Your task to perform on an android device: stop showing notifications on the lock screen Image 0: 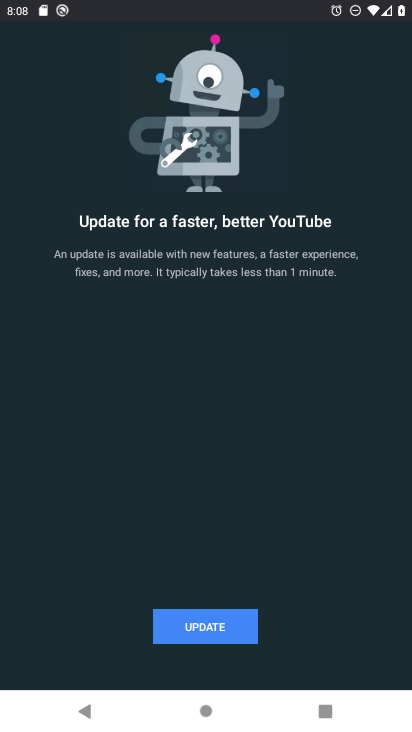
Step 0: press home button
Your task to perform on an android device: stop showing notifications on the lock screen Image 1: 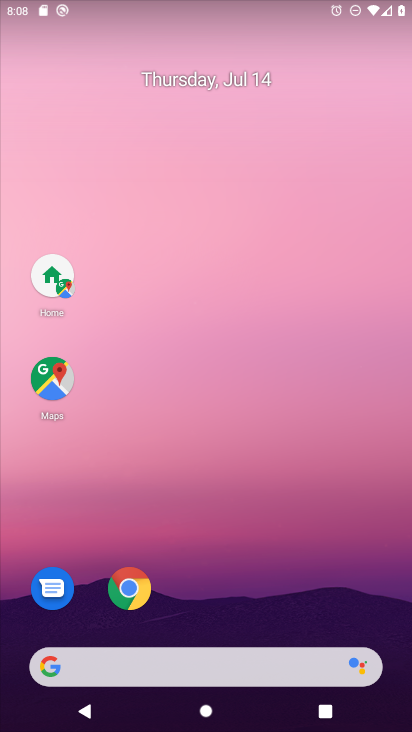
Step 1: drag from (36, 720) to (86, 327)
Your task to perform on an android device: stop showing notifications on the lock screen Image 2: 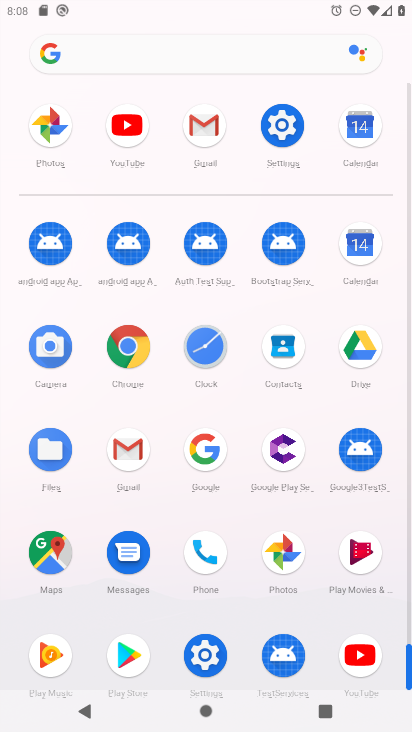
Step 2: click (209, 658)
Your task to perform on an android device: stop showing notifications on the lock screen Image 3: 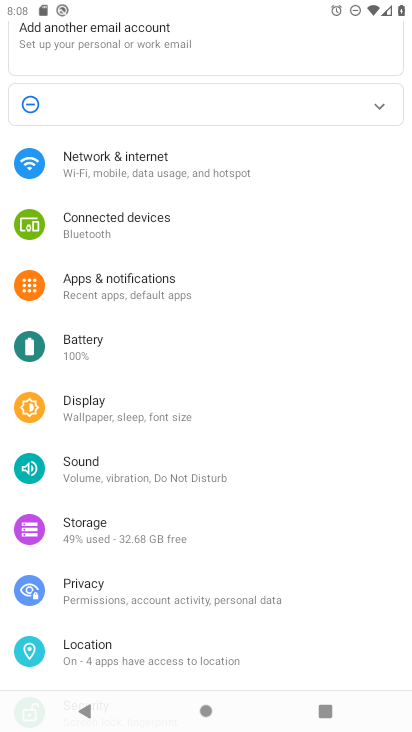
Step 3: click (89, 290)
Your task to perform on an android device: stop showing notifications on the lock screen Image 4: 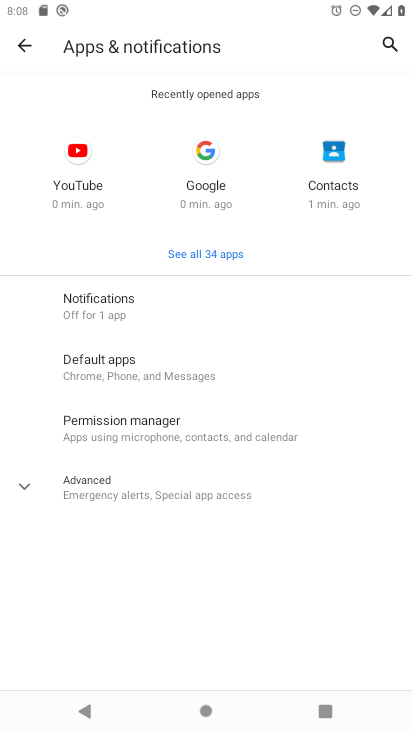
Step 4: click (105, 488)
Your task to perform on an android device: stop showing notifications on the lock screen Image 5: 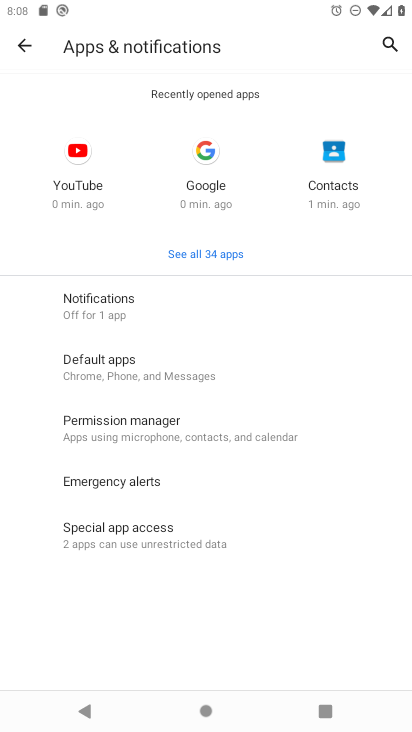
Step 5: click (91, 308)
Your task to perform on an android device: stop showing notifications on the lock screen Image 6: 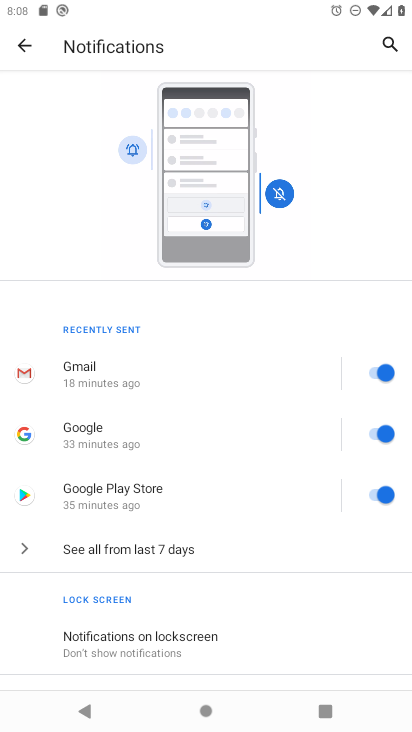
Step 6: click (87, 641)
Your task to perform on an android device: stop showing notifications on the lock screen Image 7: 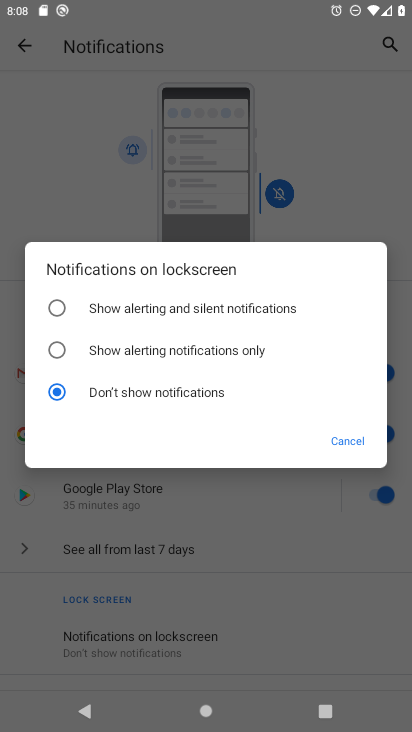
Step 7: task complete